Your task to perform on an android device: remove spam from my inbox in the gmail app Image 0: 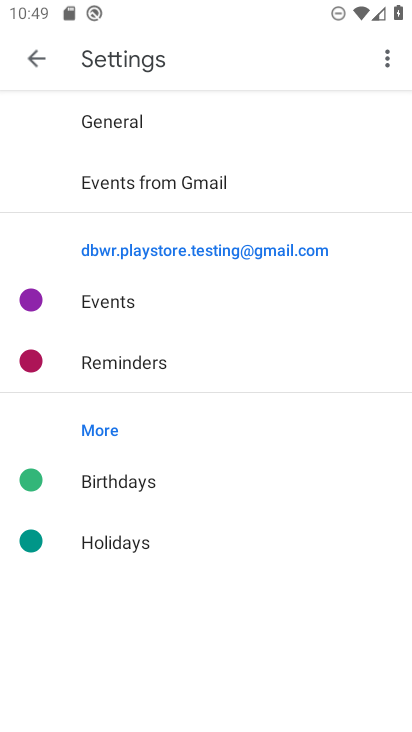
Step 0: press home button
Your task to perform on an android device: remove spam from my inbox in the gmail app Image 1: 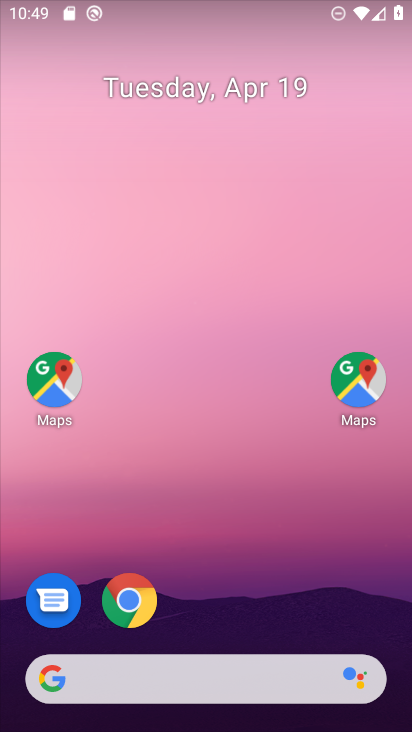
Step 1: drag from (297, 594) to (317, 154)
Your task to perform on an android device: remove spam from my inbox in the gmail app Image 2: 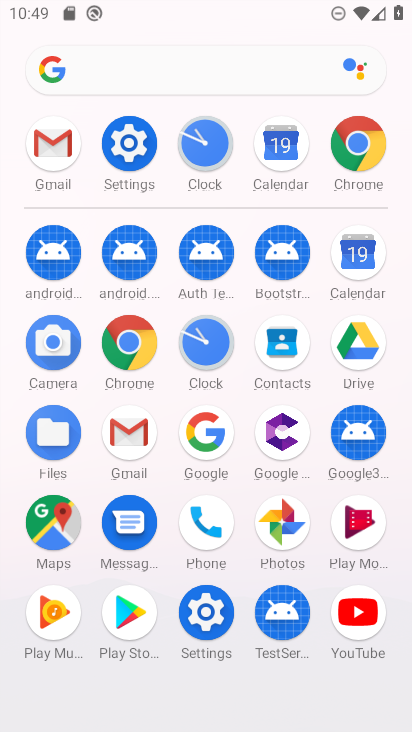
Step 2: click (121, 444)
Your task to perform on an android device: remove spam from my inbox in the gmail app Image 3: 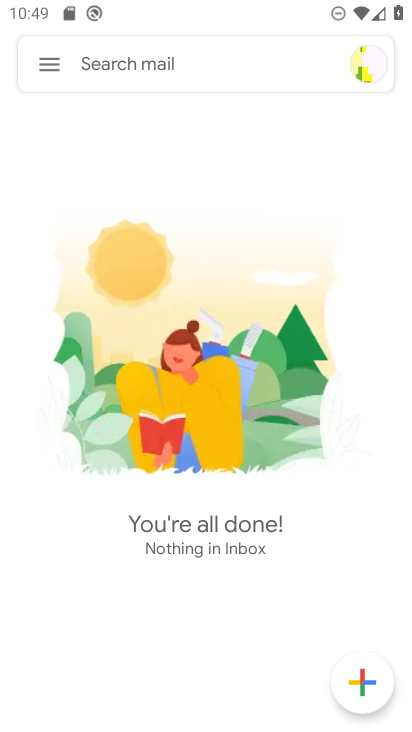
Step 3: click (57, 58)
Your task to perform on an android device: remove spam from my inbox in the gmail app Image 4: 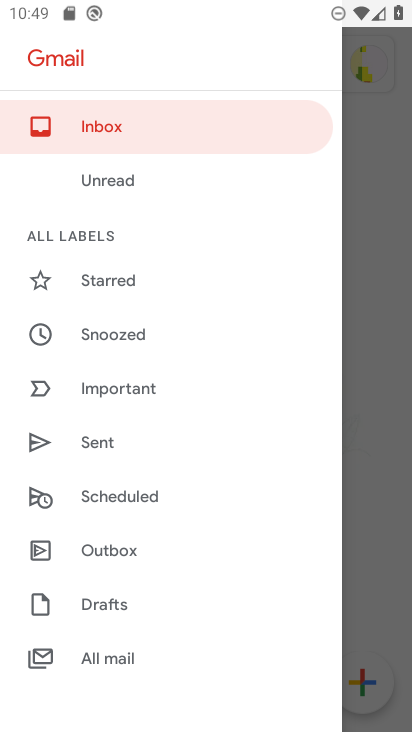
Step 4: drag from (130, 631) to (119, 221)
Your task to perform on an android device: remove spam from my inbox in the gmail app Image 5: 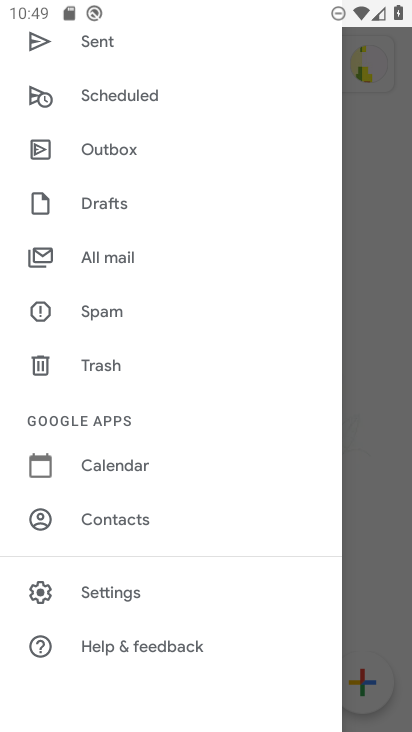
Step 5: click (132, 312)
Your task to perform on an android device: remove spam from my inbox in the gmail app Image 6: 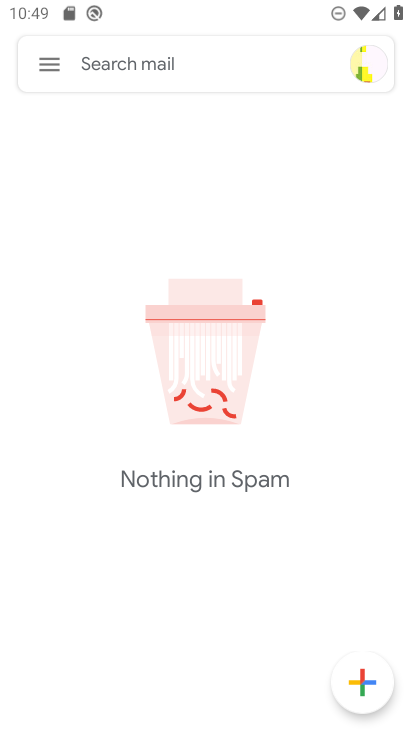
Step 6: task complete